Your task to perform on an android device: find snoozed emails in the gmail app Image 0: 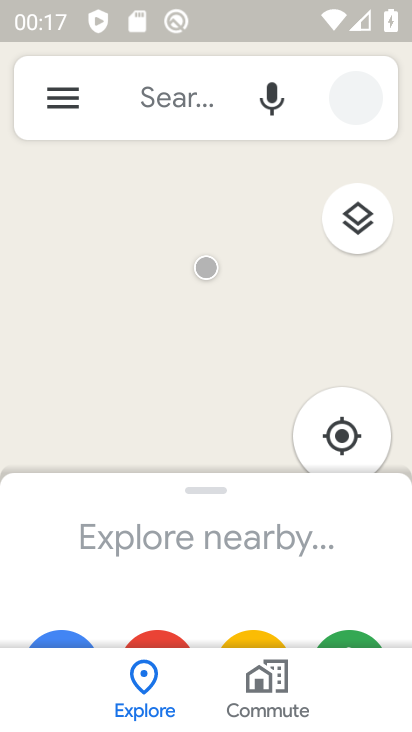
Step 0: press home button
Your task to perform on an android device: find snoozed emails in the gmail app Image 1: 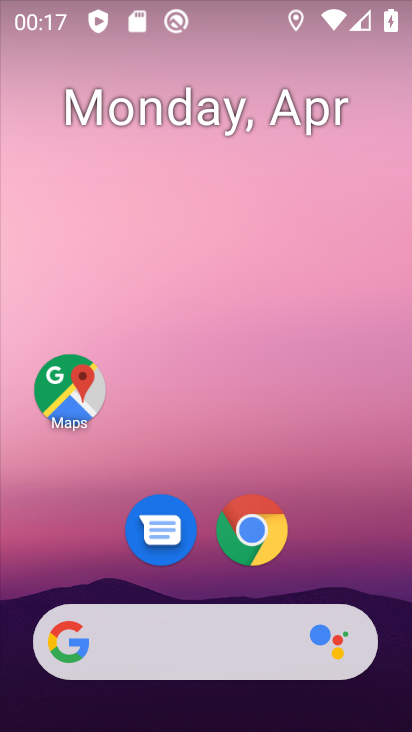
Step 1: drag from (162, 660) to (318, 153)
Your task to perform on an android device: find snoozed emails in the gmail app Image 2: 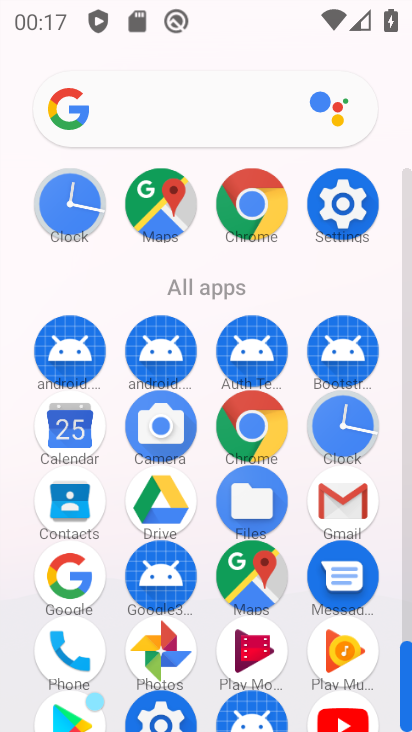
Step 2: click (342, 510)
Your task to perform on an android device: find snoozed emails in the gmail app Image 3: 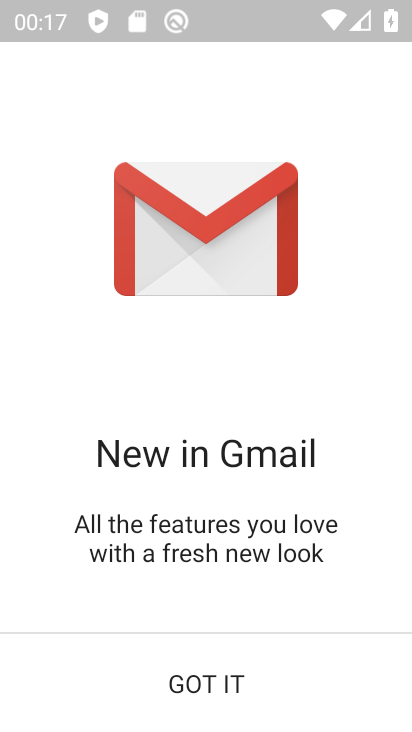
Step 3: click (208, 678)
Your task to perform on an android device: find snoozed emails in the gmail app Image 4: 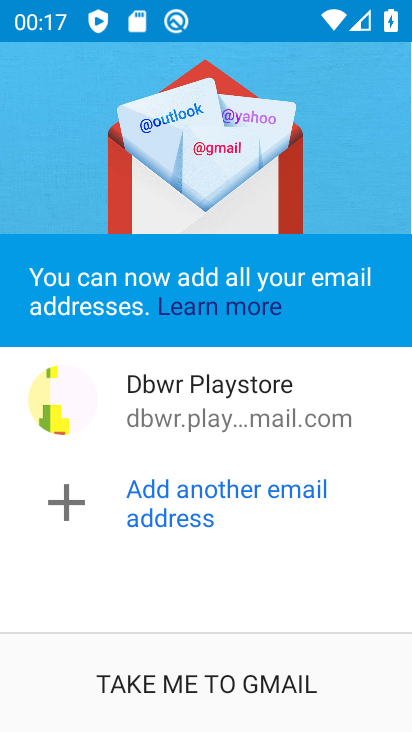
Step 4: click (208, 678)
Your task to perform on an android device: find snoozed emails in the gmail app Image 5: 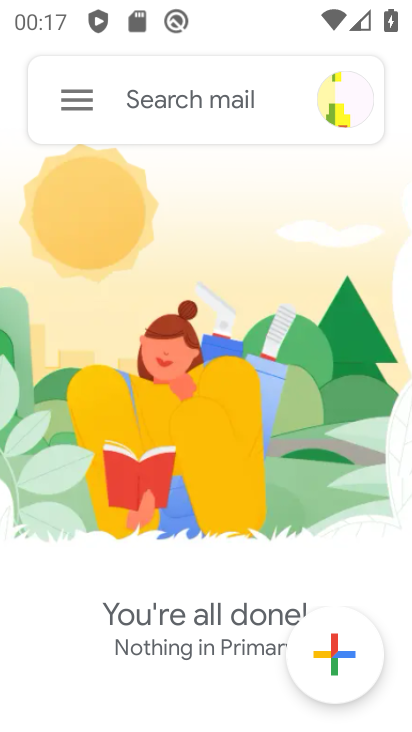
Step 5: click (83, 93)
Your task to perform on an android device: find snoozed emails in the gmail app Image 6: 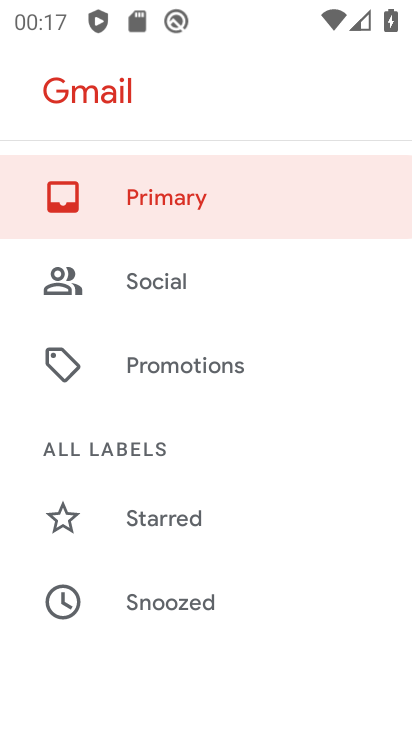
Step 6: drag from (206, 595) to (350, 92)
Your task to perform on an android device: find snoozed emails in the gmail app Image 7: 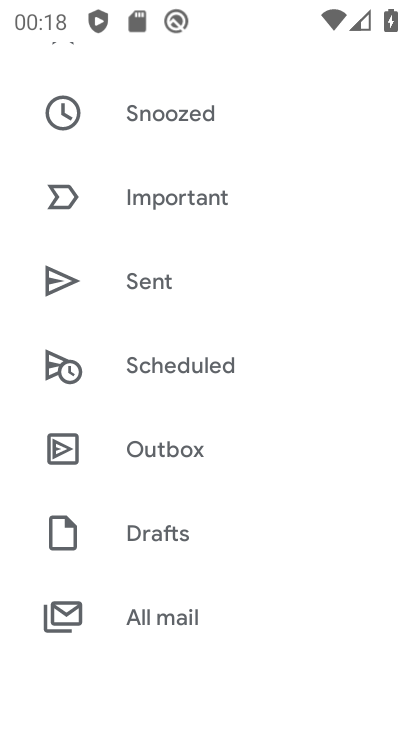
Step 7: click (184, 113)
Your task to perform on an android device: find snoozed emails in the gmail app Image 8: 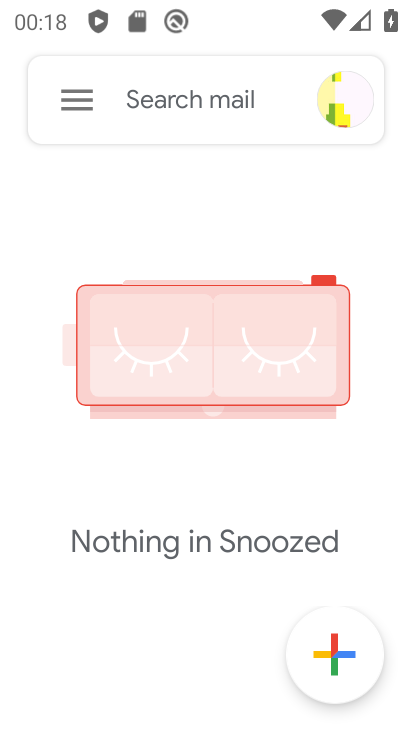
Step 8: task complete